Your task to perform on an android device: turn off location history Image 0: 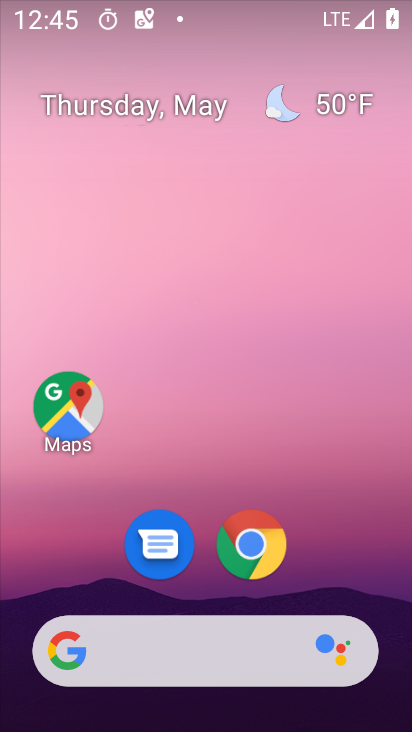
Step 0: drag from (218, 631) to (137, 9)
Your task to perform on an android device: turn off location history Image 1: 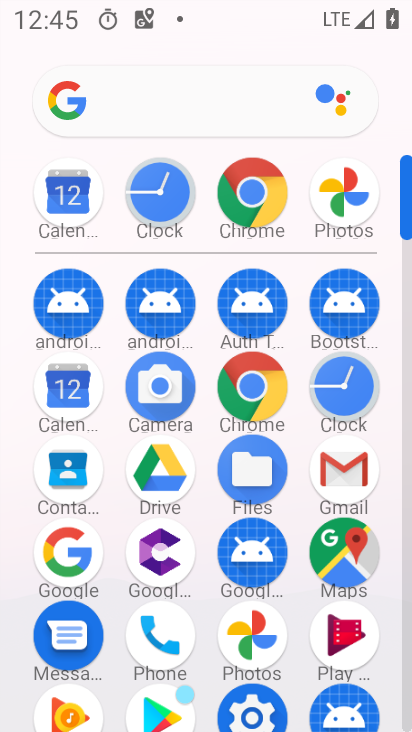
Step 1: click (260, 718)
Your task to perform on an android device: turn off location history Image 2: 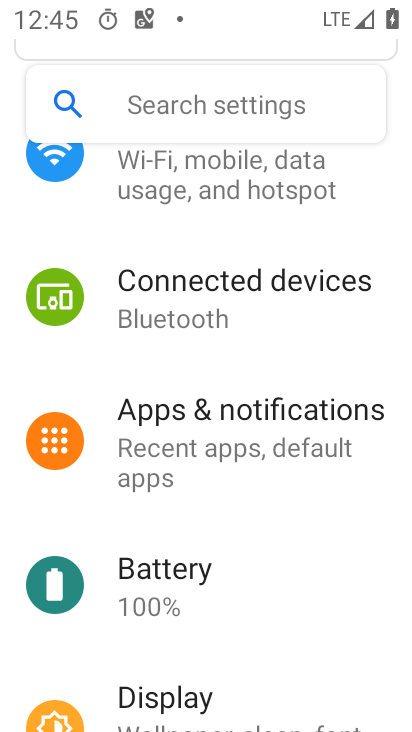
Step 2: drag from (177, 565) to (157, 206)
Your task to perform on an android device: turn off location history Image 3: 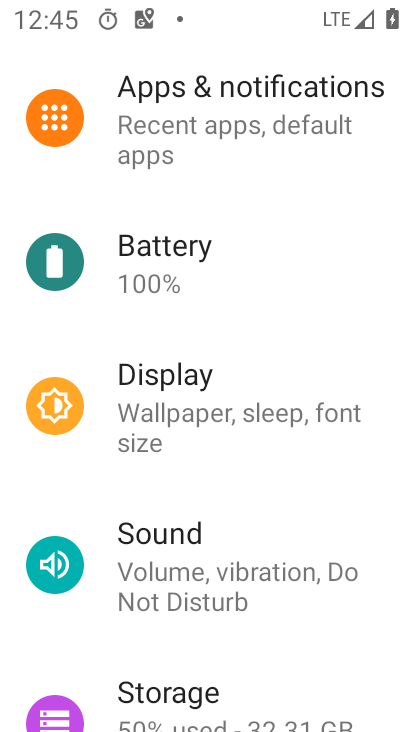
Step 3: drag from (187, 594) to (121, 72)
Your task to perform on an android device: turn off location history Image 4: 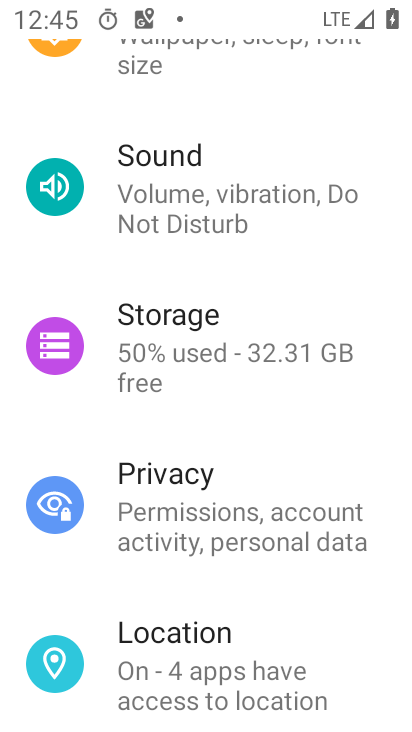
Step 4: click (170, 678)
Your task to perform on an android device: turn off location history Image 5: 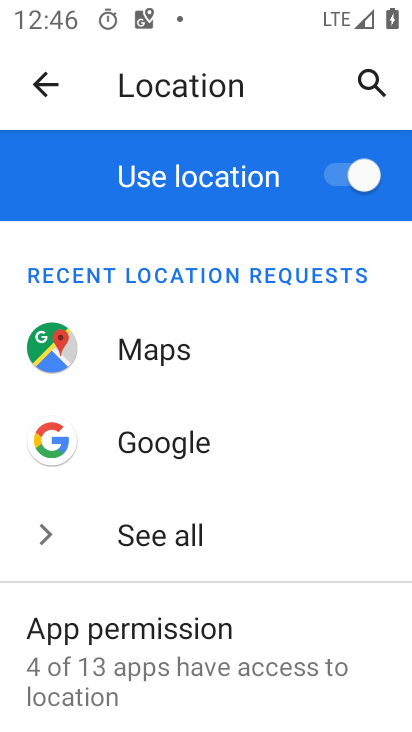
Step 5: drag from (174, 621) to (161, 138)
Your task to perform on an android device: turn off location history Image 6: 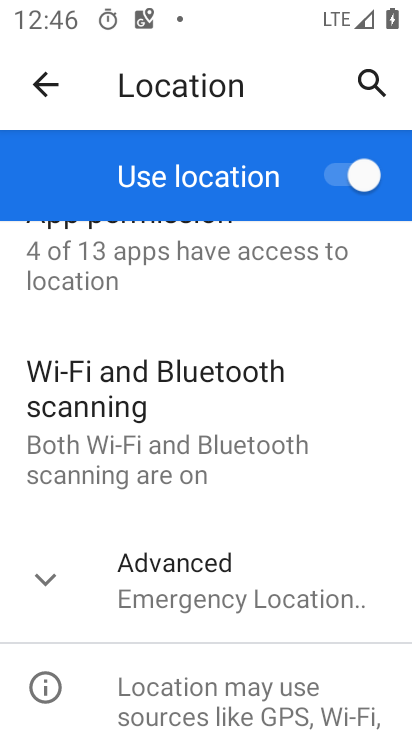
Step 6: click (158, 610)
Your task to perform on an android device: turn off location history Image 7: 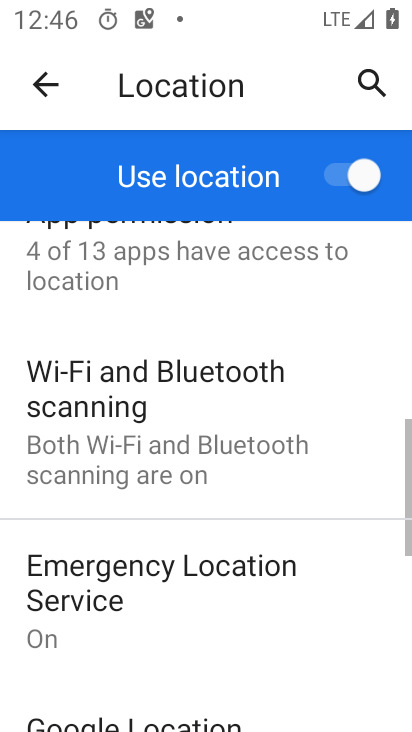
Step 7: drag from (192, 614) to (156, 131)
Your task to perform on an android device: turn off location history Image 8: 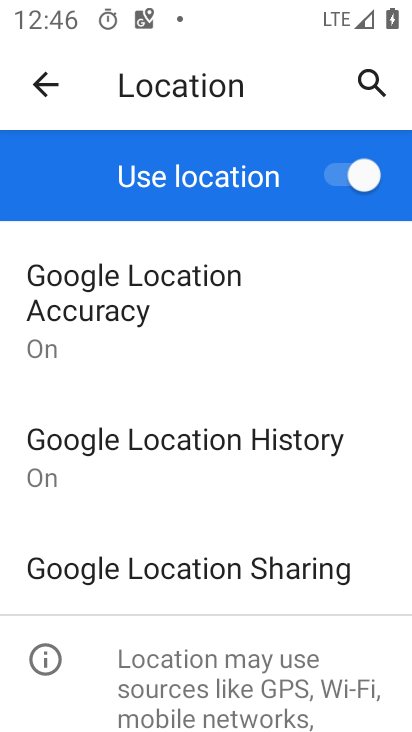
Step 8: click (210, 440)
Your task to perform on an android device: turn off location history Image 9: 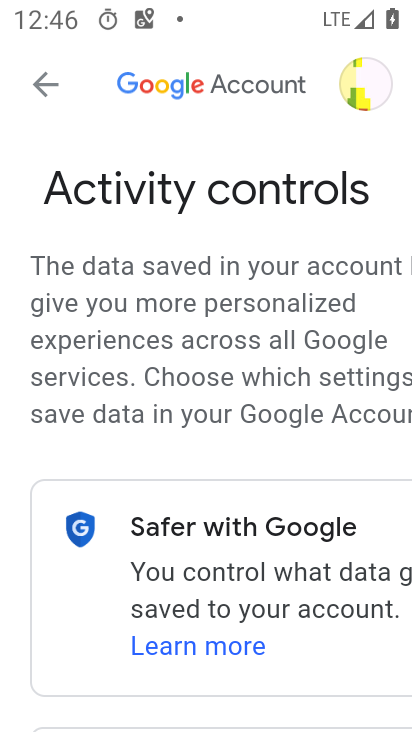
Step 9: drag from (314, 438) to (125, 99)
Your task to perform on an android device: turn off location history Image 10: 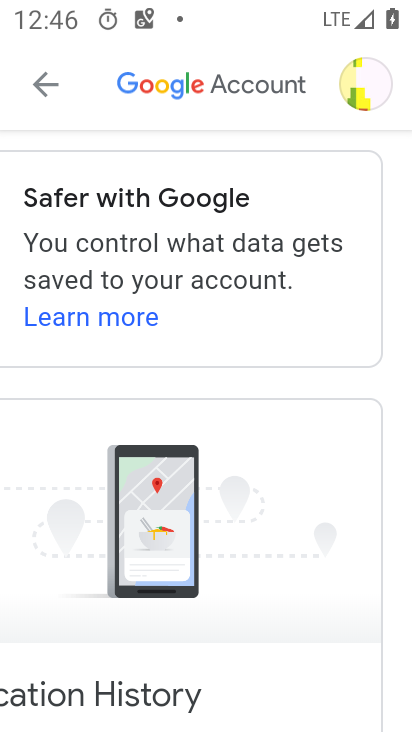
Step 10: drag from (234, 516) to (53, 66)
Your task to perform on an android device: turn off location history Image 11: 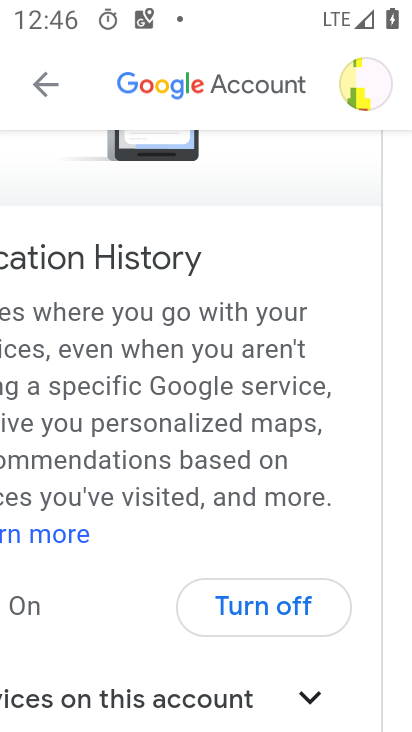
Step 11: click (268, 608)
Your task to perform on an android device: turn off location history Image 12: 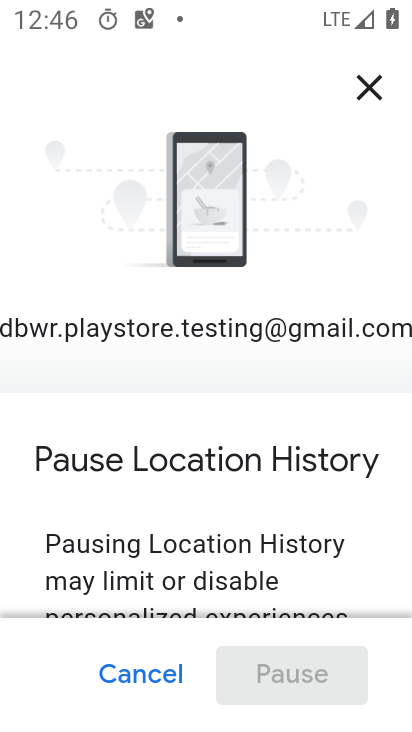
Step 12: drag from (259, 585) to (59, 6)
Your task to perform on an android device: turn off location history Image 13: 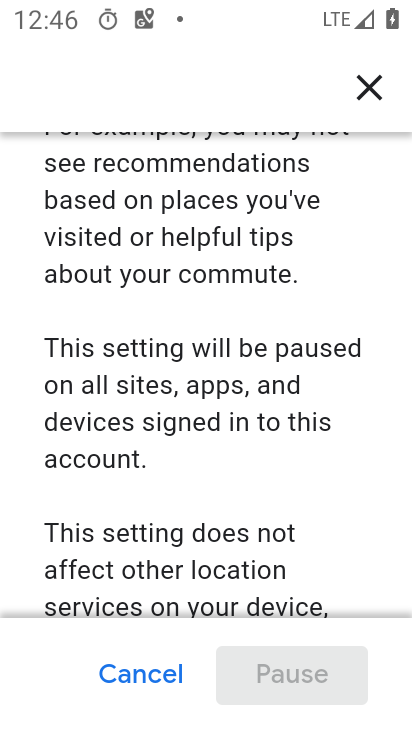
Step 13: drag from (196, 506) to (4, 473)
Your task to perform on an android device: turn off location history Image 14: 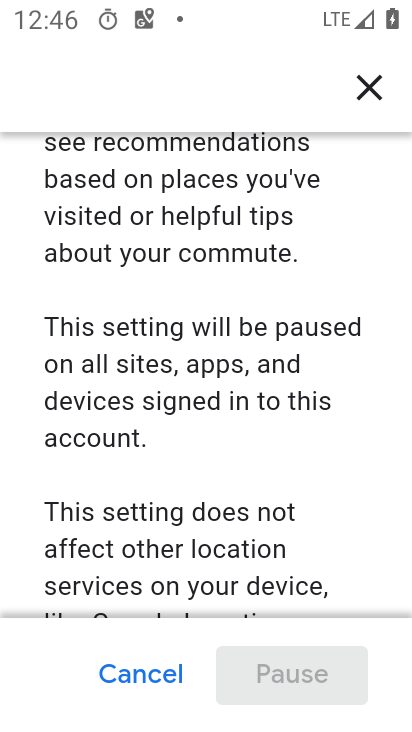
Step 14: drag from (301, 515) to (99, 3)
Your task to perform on an android device: turn off location history Image 15: 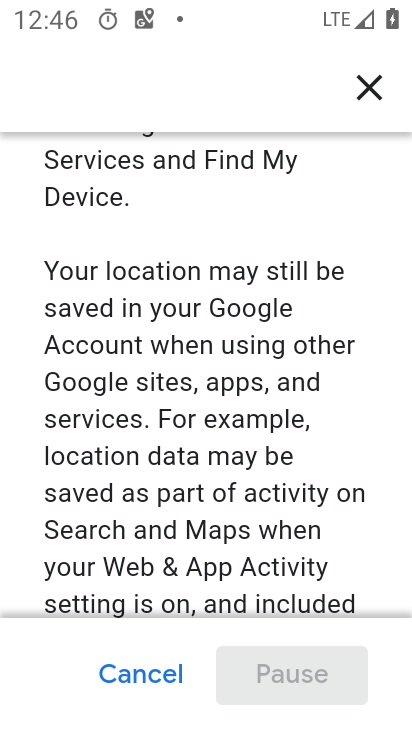
Step 15: drag from (187, 443) to (10, 581)
Your task to perform on an android device: turn off location history Image 16: 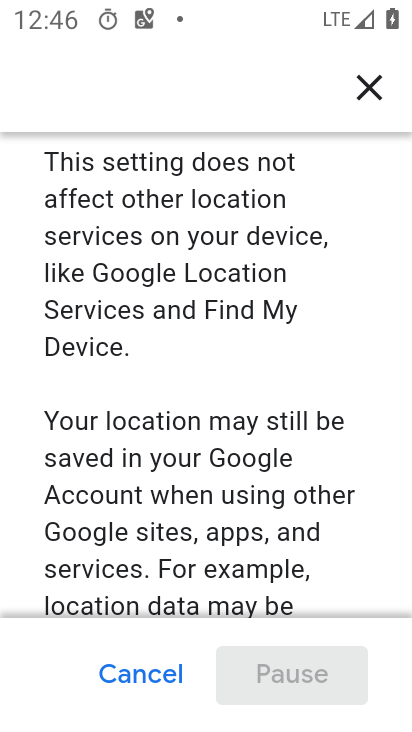
Step 16: drag from (335, 535) to (70, 28)
Your task to perform on an android device: turn off location history Image 17: 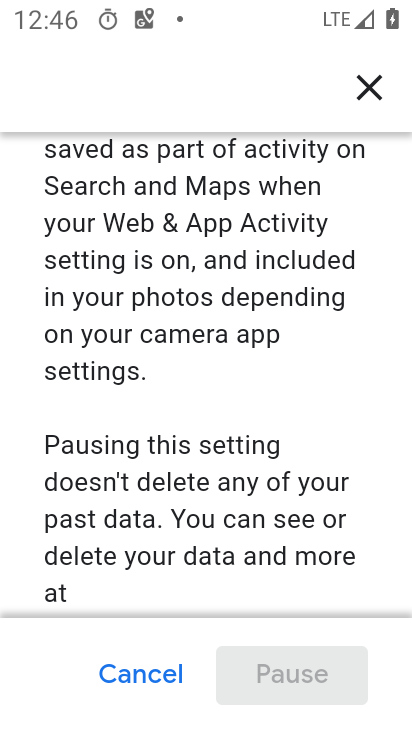
Step 17: drag from (255, 525) to (146, 22)
Your task to perform on an android device: turn off location history Image 18: 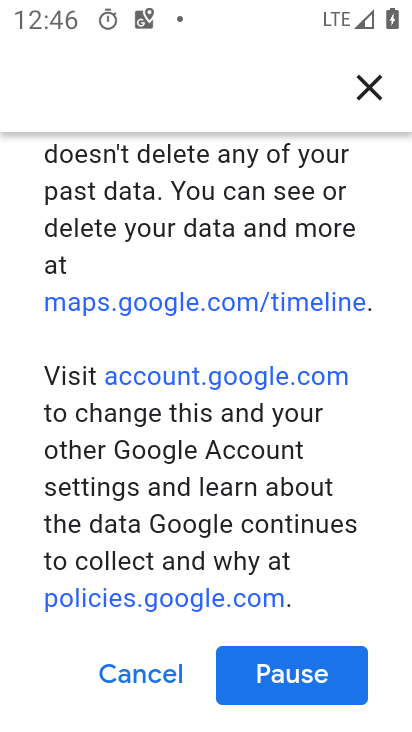
Step 18: click (280, 691)
Your task to perform on an android device: turn off location history Image 19: 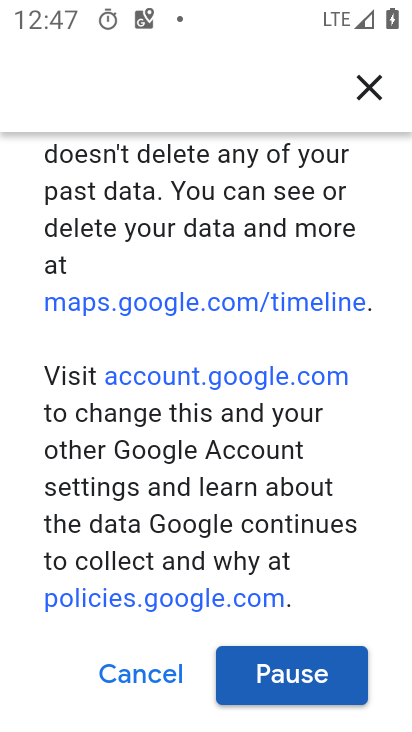
Step 19: click (312, 674)
Your task to perform on an android device: turn off location history Image 20: 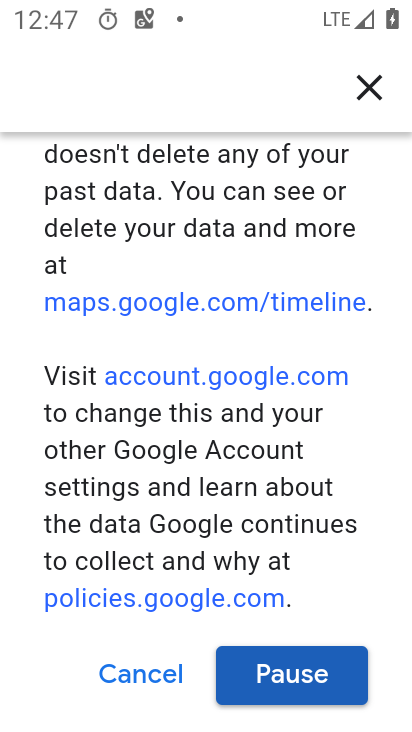
Step 20: click (278, 681)
Your task to perform on an android device: turn off location history Image 21: 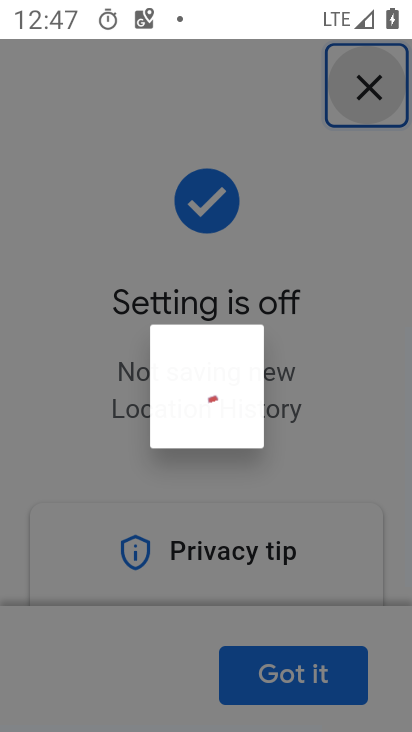
Step 21: drag from (309, 528) to (193, 111)
Your task to perform on an android device: turn off location history Image 22: 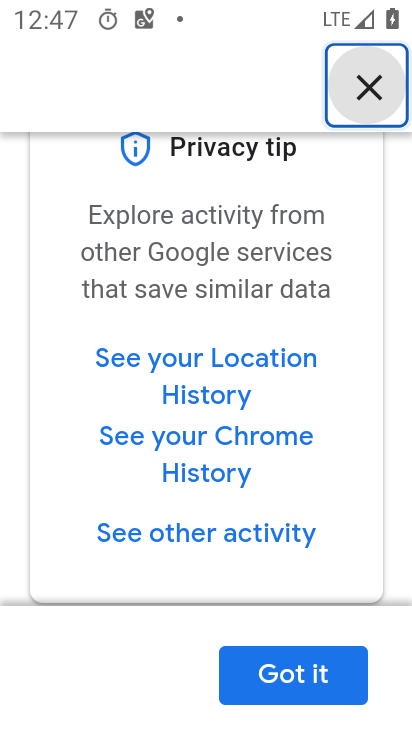
Step 22: click (285, 661)
Your task to perform on an android device: turn off location history Image 23: 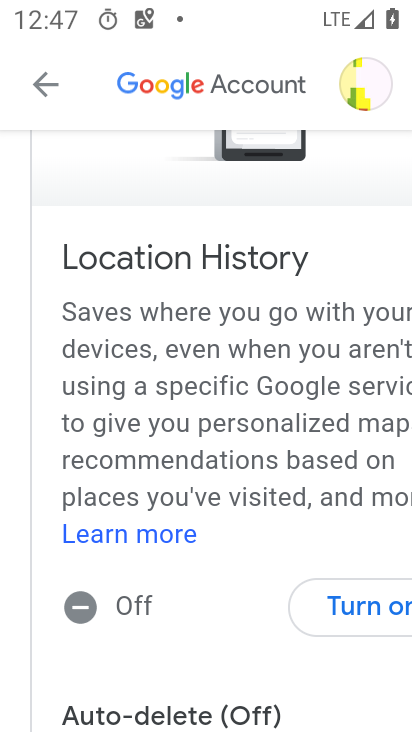
Step 23: task complete